Your task to perform on an android device: When is my next meeting? Image 0: 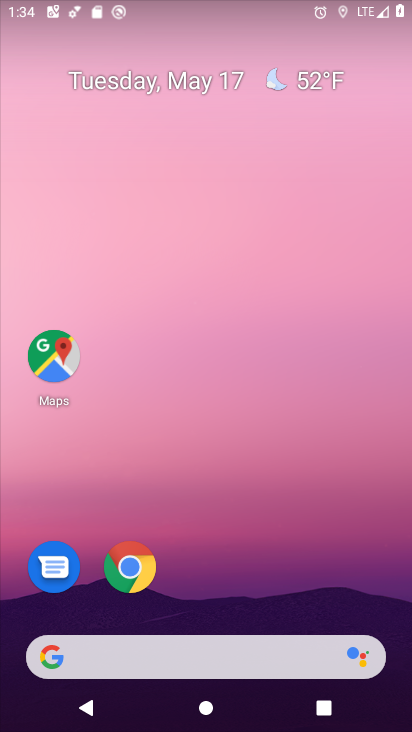
Step 0: drag from (219, 606) to (383, 262)
Your task to perform on an android device: When is my next meeting? Image 1: 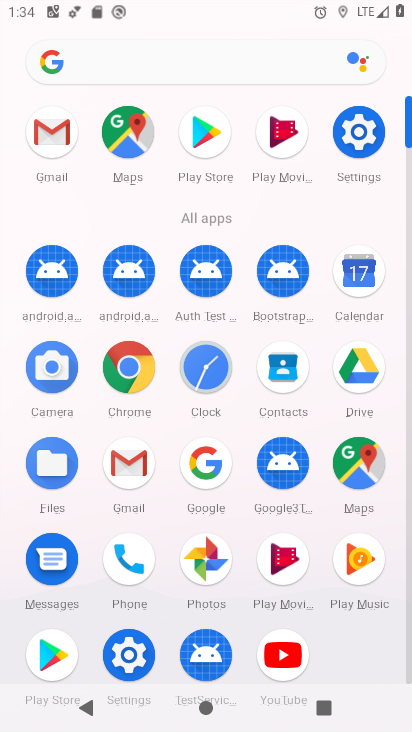
Step 1: click (362, 290)
Your task to perform on an android device: When is my next meeting? Image 2: 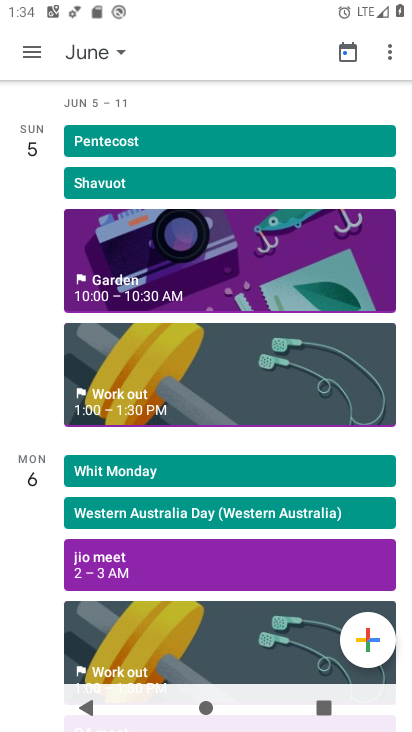
Step 2: task complete